Your task to perform on an android device: Open notification settings Image 0: 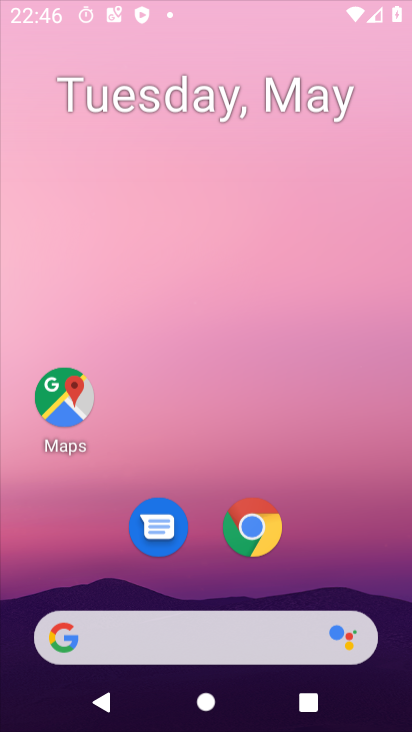
Step 0: drag from (220, 577) to (248, 32)
Your task to perform on an android device: Open notification settings Image 1: 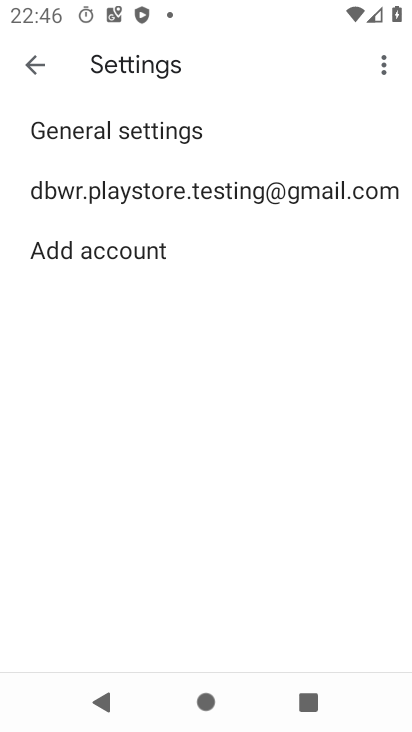
Step 1: press home button
Your task to perform on an android device: Open notification settings Image 2: 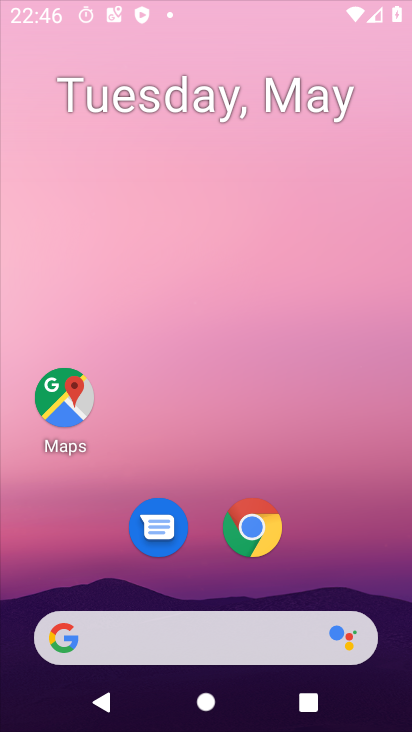
Step 2: drag from (219, 619) to (198, 187)
Your task to perform on an android device: Open notification settings Image 3: 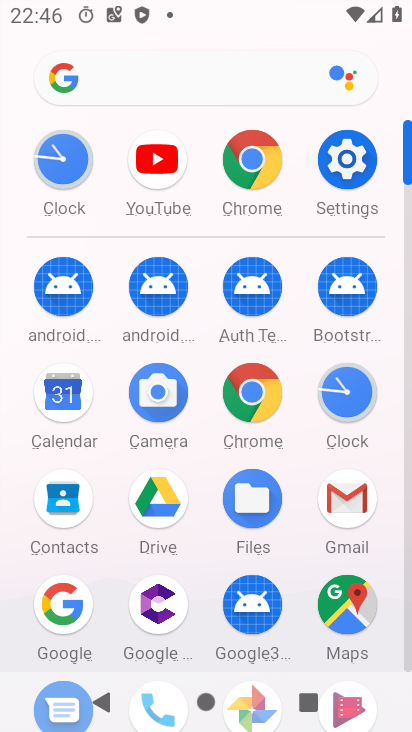
Step 3: click (351, 161)
Your task to perform on an android device: Open notification settings Image 4: 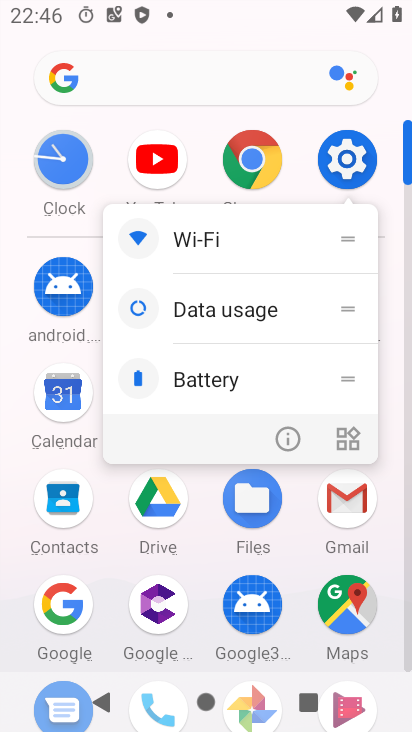
Step 4: click (289, 435)
Your task to perform on an android device: Open notification settings Image 5: 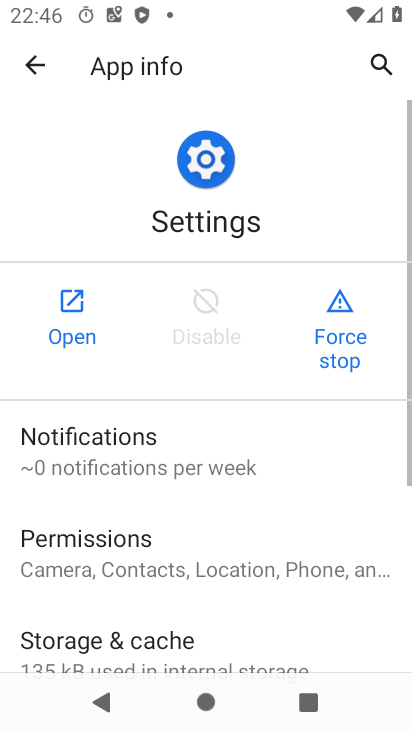
Step 5: click (74, 300)
Your task to perform on an android device: Open notification settings Image 6: 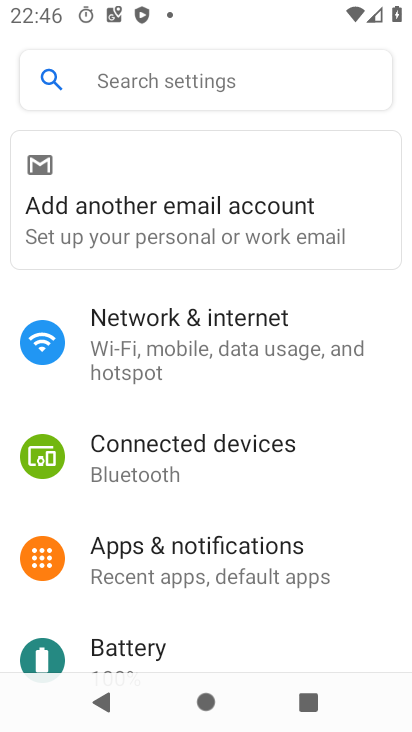
Step 6: click (195, 532)
Your task to perform on an android device: Open notification settings Image 7: 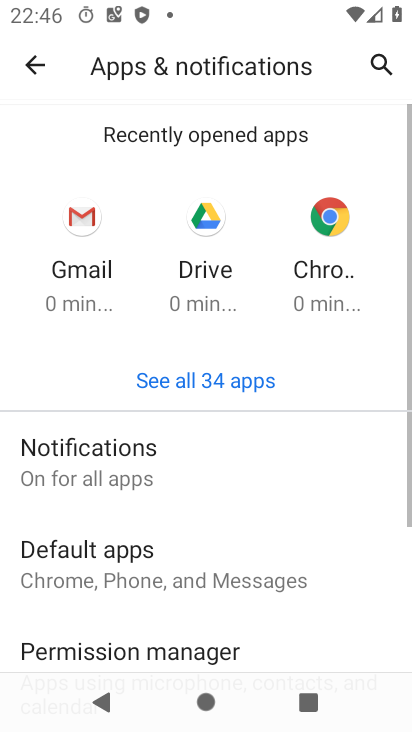
Step 7: drag from (227, 578) to (342, 157)
Your task to perform on an android device: Open notification settings Image 8: 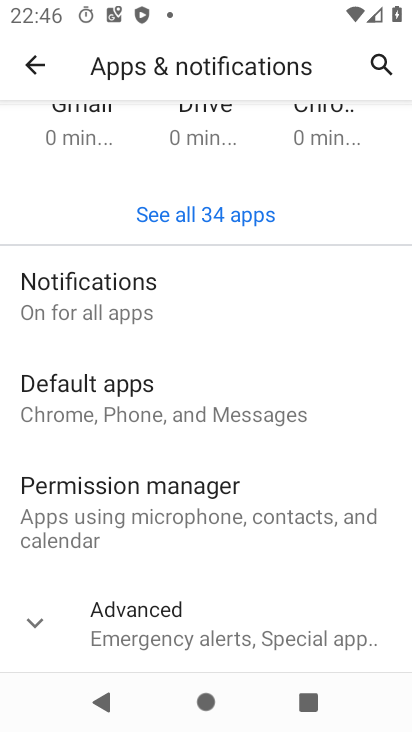
Step 8: click (179, 295)
Your task to perform on an android device: Open notification settings Image 9: 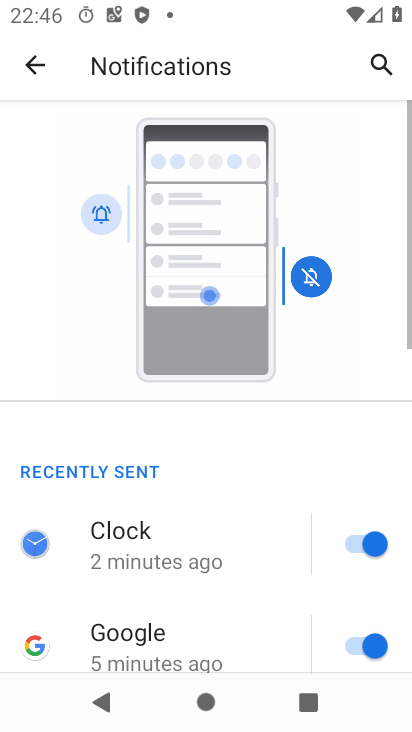
Step 9: drag from (201, 576) to (306, 100)
Your task to perform on an android device: Open notification settings Image 10: 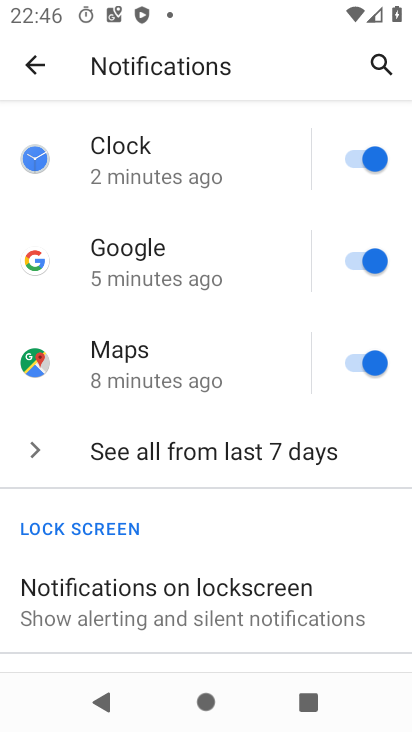
Step 10: drag from (174, 613) to (255, 18)
Your task to perform on an android device: Open notification settings Image 11: 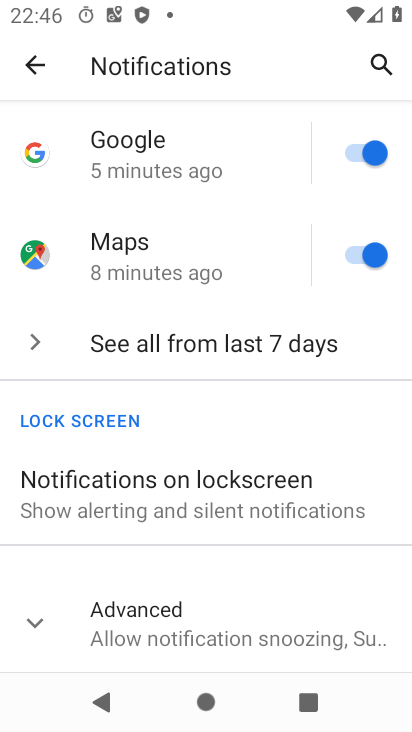
Step 11: click (157, 614)
Your task to perform on an android device: Open notification settings Image 12: 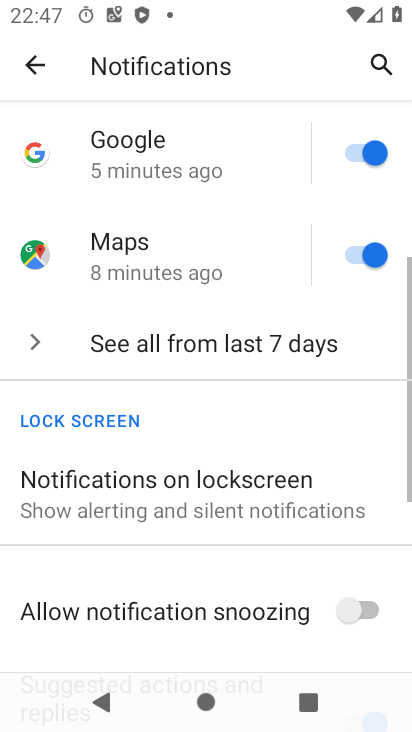
Step 12: task complete